Your task to perform on an android device: remove spam from my inbox in the gmail app Image 0: 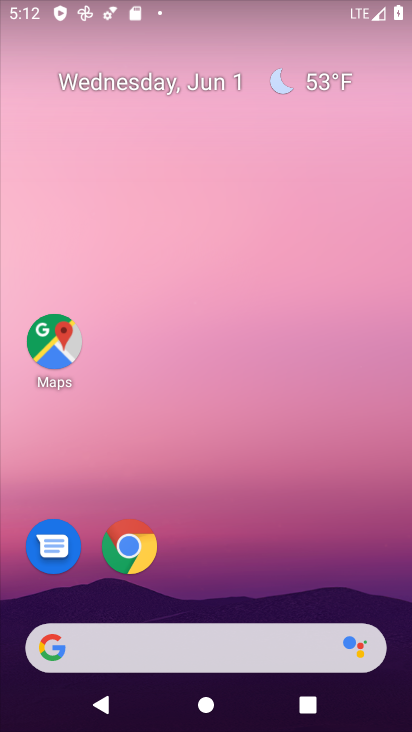
Step 0: drag from (295, 522) to (222, 85)
Your task to perform on an android device: remove spam from my inbox in the gmail app Image 1: 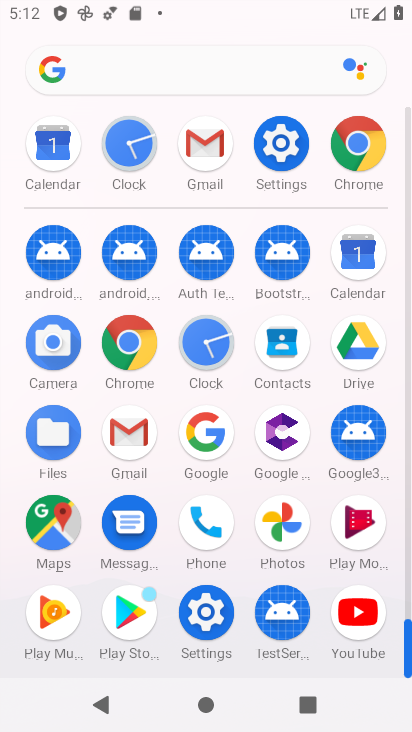
Step 1: drag from (14, 510) to (19, 189)
Your task to perform on an android device: remove spam from my inbox in the gmail app Image 2: 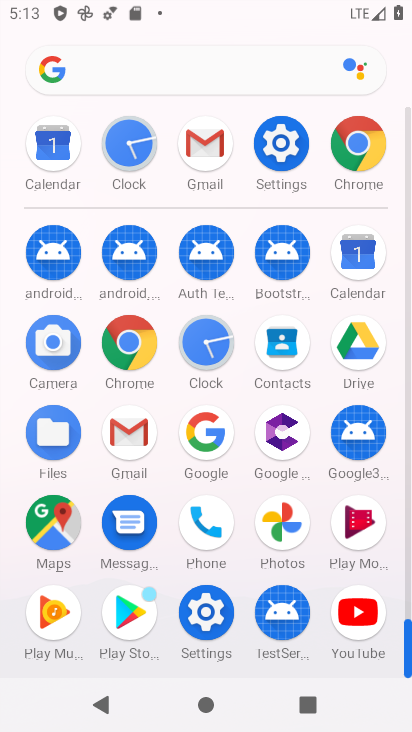
Step 2: drag from (6, 558) to (16, 232)
Your task to perform on an android device: remove spam from my inbox in the gmail app Image 3: 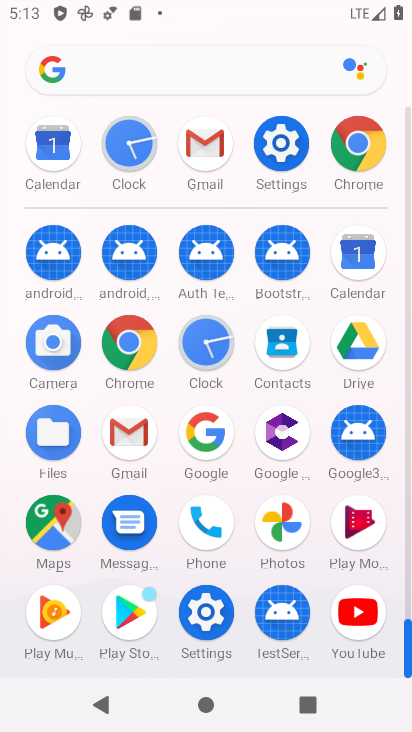
Step 3: click (130, 428)
Your task to perform on an android device: remove spam from my inbox in the gmail app Image 4: 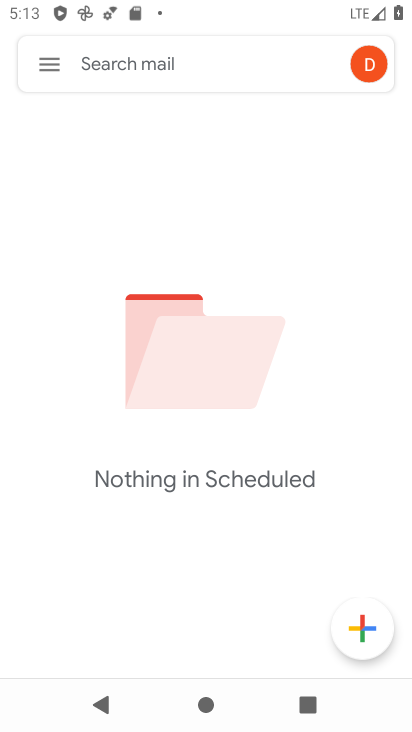
Step 4: click (53, 61)
Your task to perform on an android device: remove spam from my inbox in the gmail app Image 5: 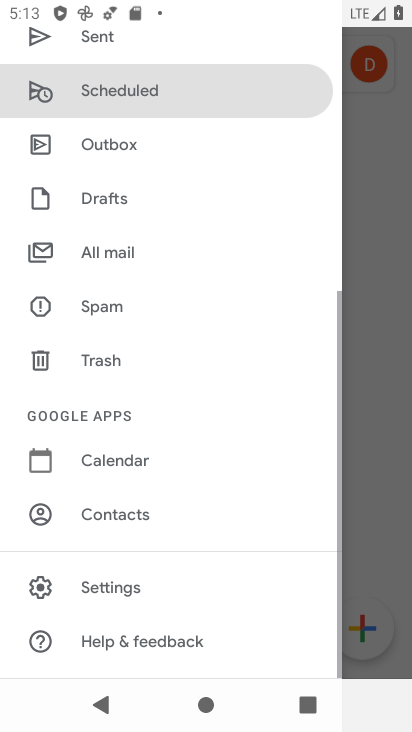
Step 5: drag from (213, 557) to (205, 160)
Your task to perform on an android device: remove spam from my inbox in the gmail app Image 6: 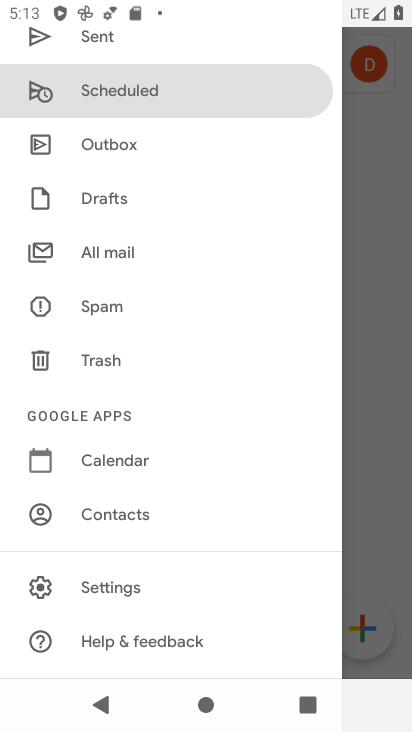
Step 6: click (114, 309)
Your task to perform on an android device: remove spam from my inbox in the gmail app Image 7: 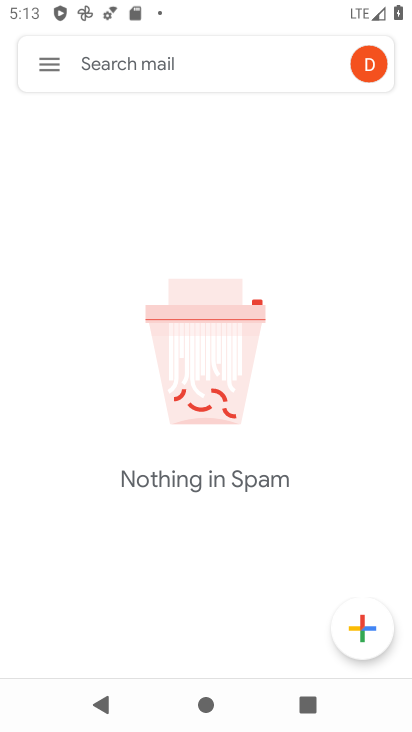
Step 7: task complete